Your task to perform on an android device: Show me popular videos on Youtube Image 0: 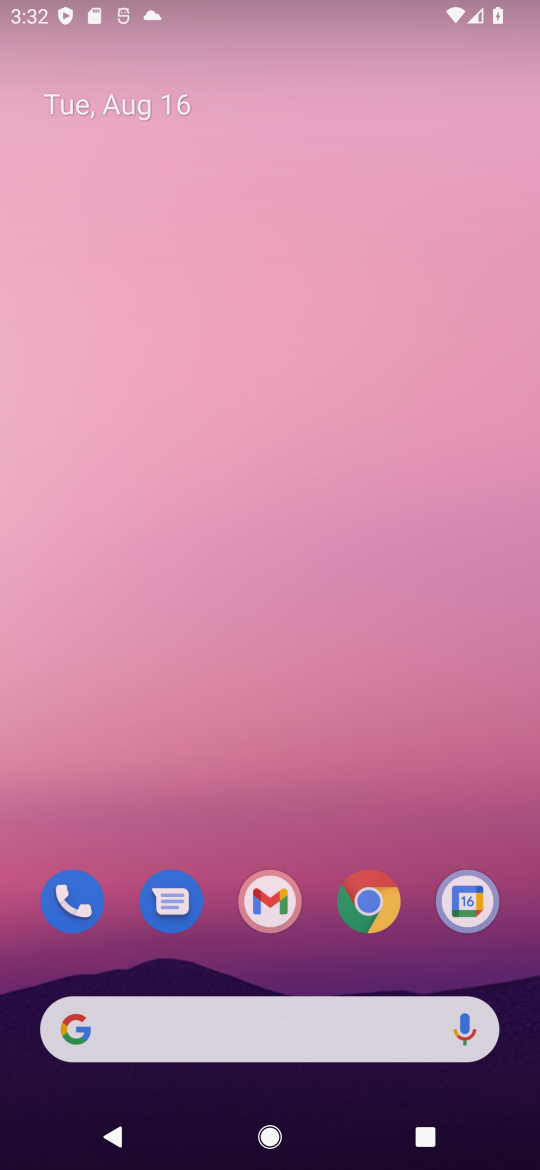
Step 0: press home button
Your task to perform on an android device: Show me popular videos on Youtube Image 1: 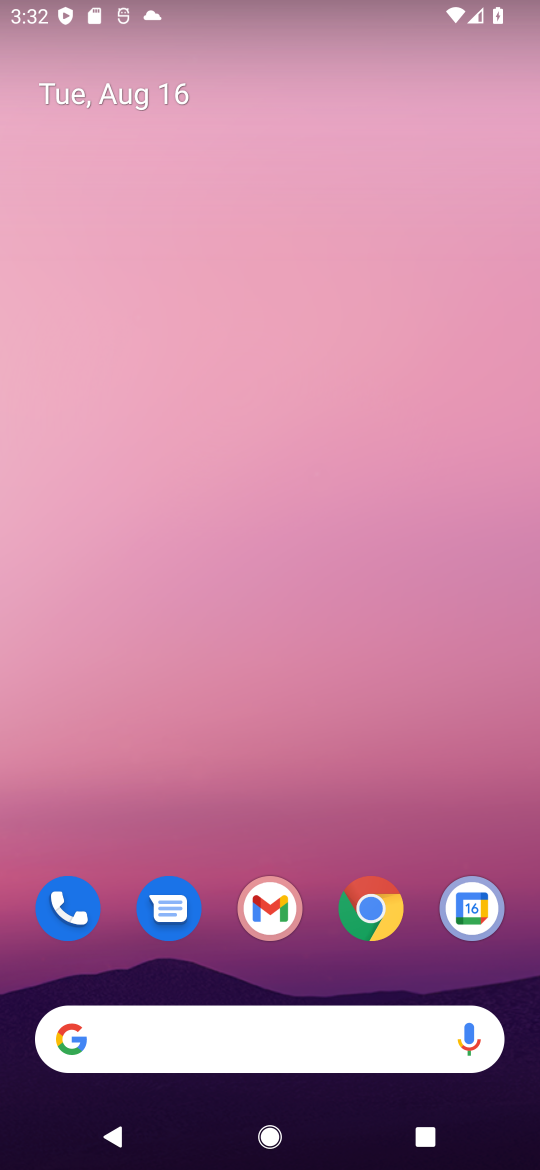
Step 1: drag from (328, 975) to (343, 125)
Your task to perform on an android device: Show me popular videos on Youtube Image 2: 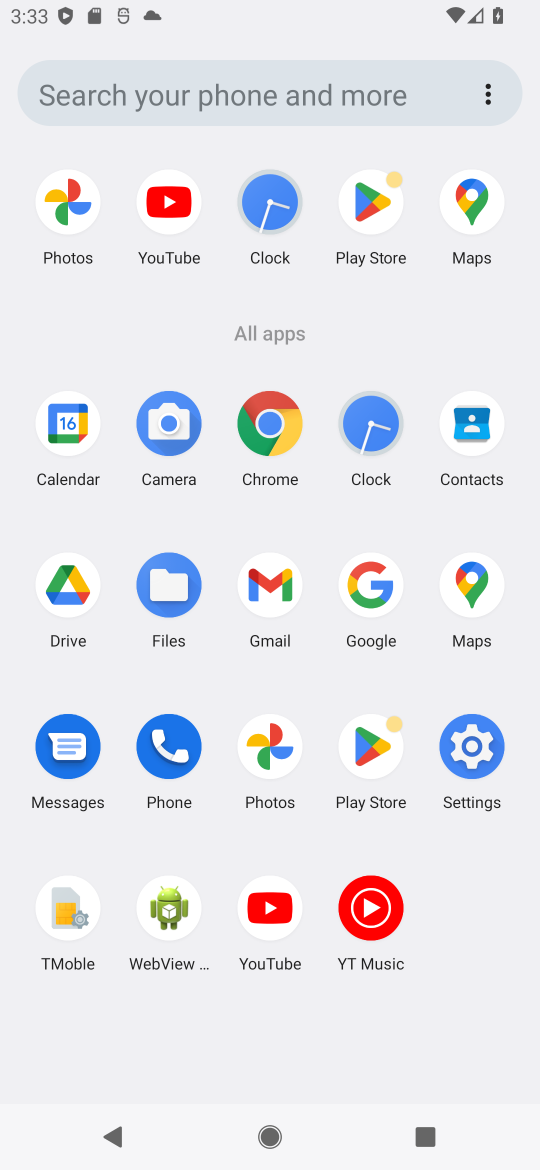
Step 2: click (262, 900)
Your task to perform on an android device: Show me popular videos on Youtube Image 3: 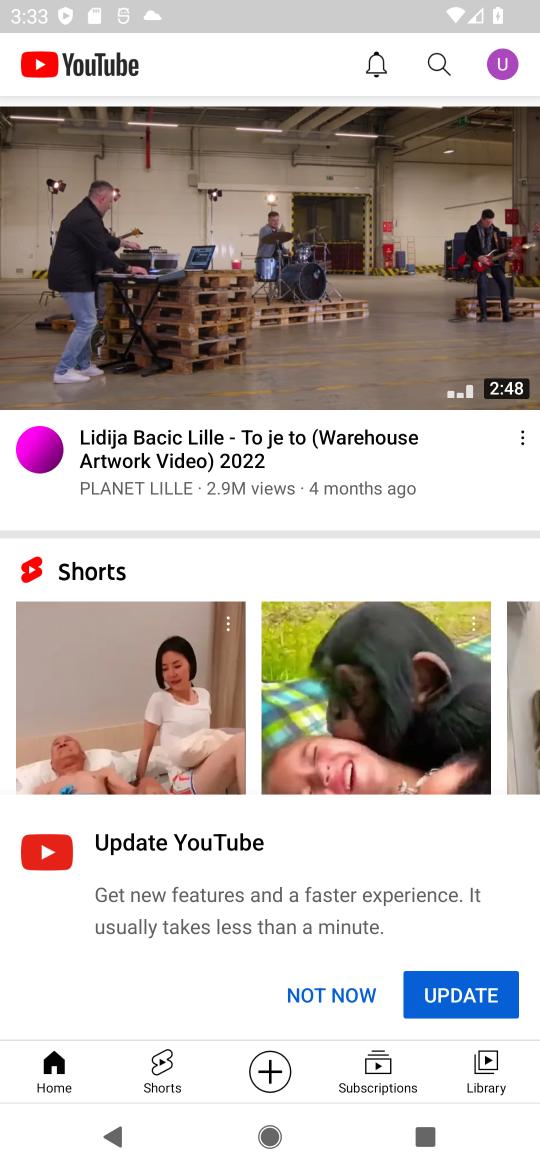
Step 3: drag from (234, 268) to (260, 1078)
Your task to perform on an android device: Show me popular videos on Youtube Image 4: 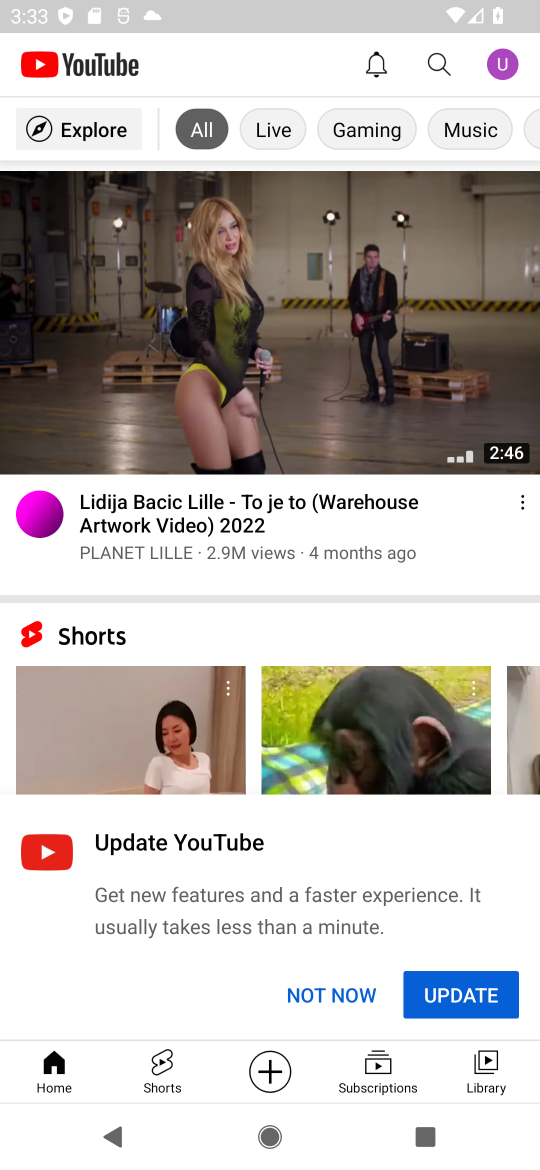
Step 4: click (83, 117)
Your task to perform on an android device: Show me popular videos on Youtube Image 5: 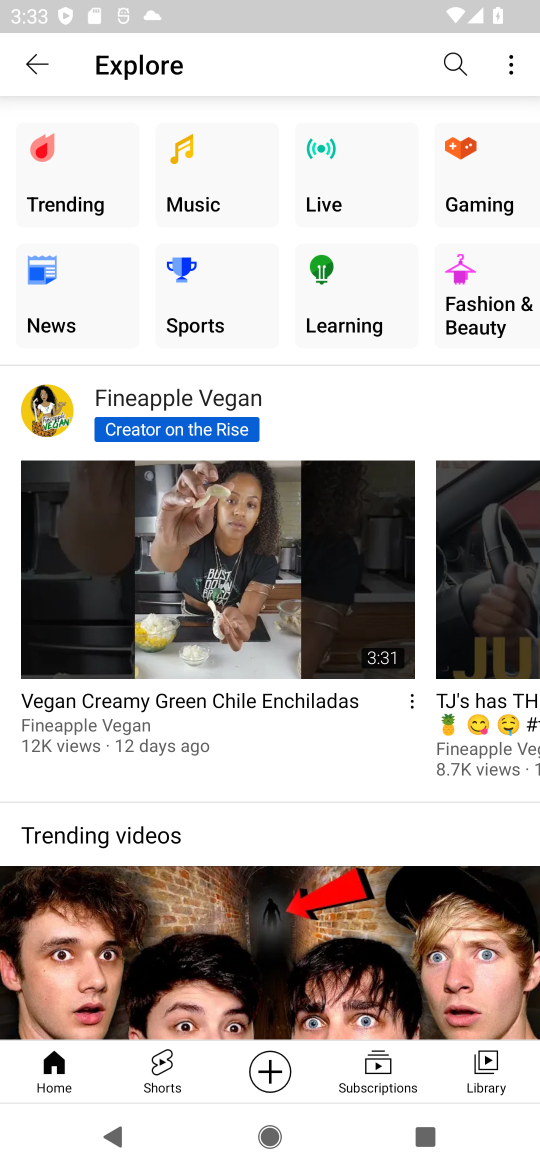
Step 5: click (73, 167)
Your task to perform on an android device: Show me popular videos on Youtube Image 6: 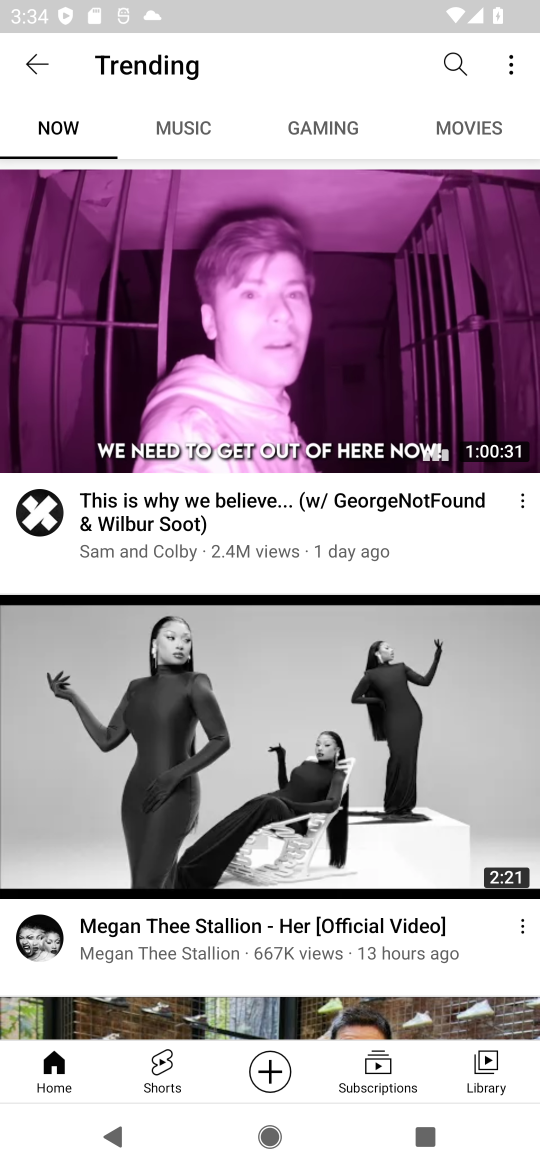
Step 6: task complete